Your task to perform on an android device: toggle priority inbox in the gmail app Image 0: 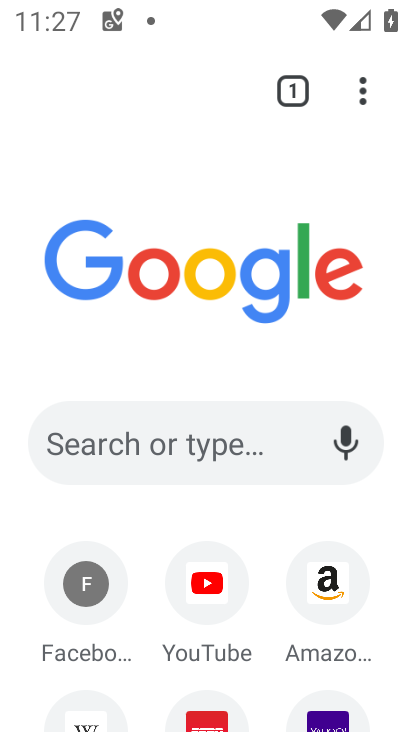
Step 0: press home button
Your task to perform on an android device: toggle priority inbox in the gmail app Image 1: 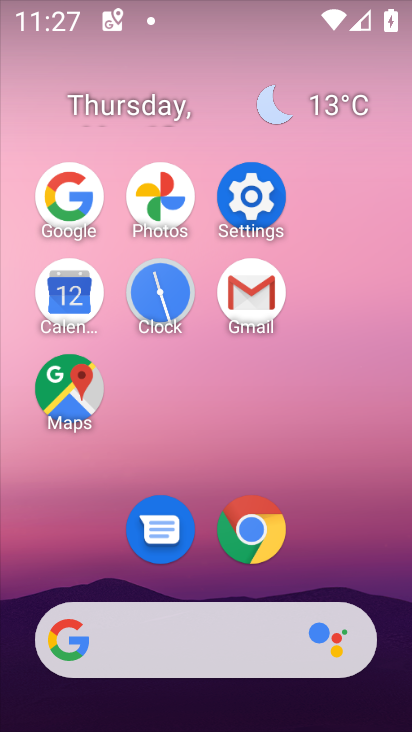
Step 1: click (256, 296)
Your task to perform on an android device: toggle priority inbox in the gmail app Image 2: 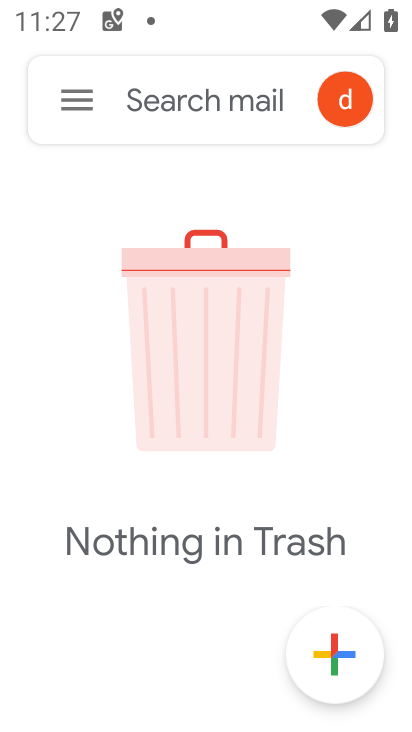
Step 2: click (85, 93)
Your task to perform on an android device: toggle priority inbox in the gmail app Image 3: 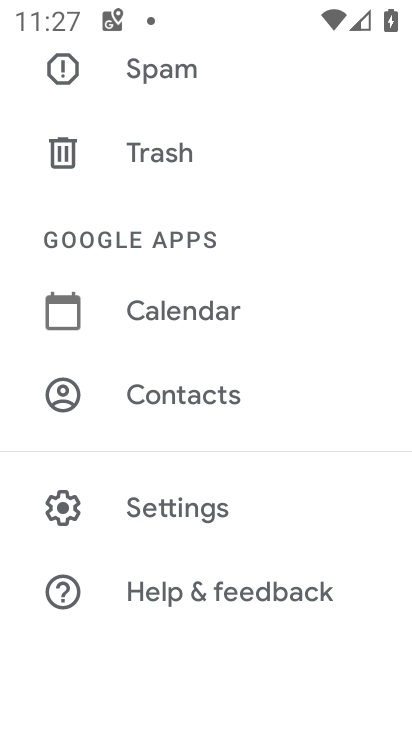
Step 3: click (201, 489)
Your task to perform on an android device: toggle priority inbox in the gmail app Image 4: 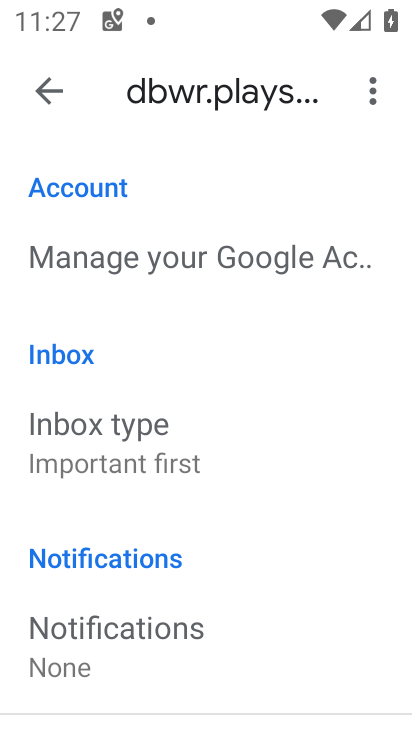
Step 4: click (200, 428)
Your task to perform on an android device: toggle priority inbox in the gmail app Image 5: 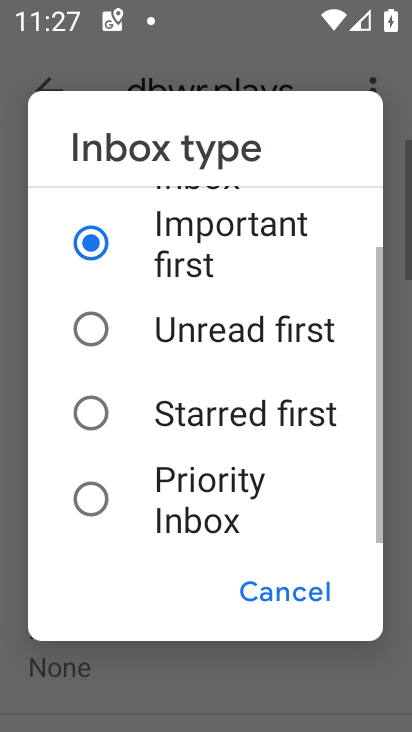
Step 5: drag from (198, 488) to (199, 454)
Your task to perform on an android device: toggle priority inbox in the gmail app Image 6: 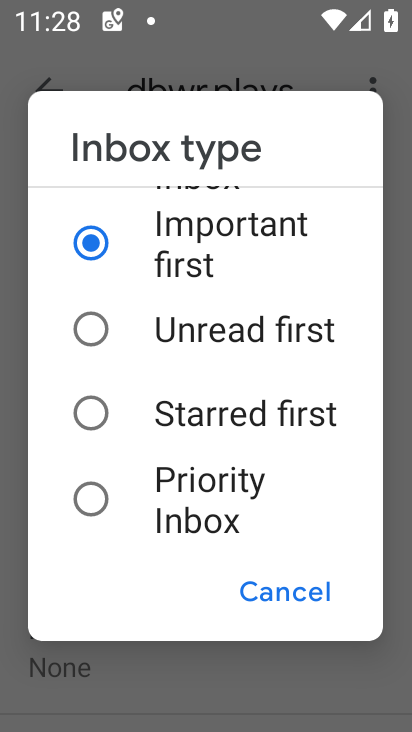
Step 6: click (163, 514)
Your task to perform on an android device: toggle priority inbox in the gmail app Image 7: 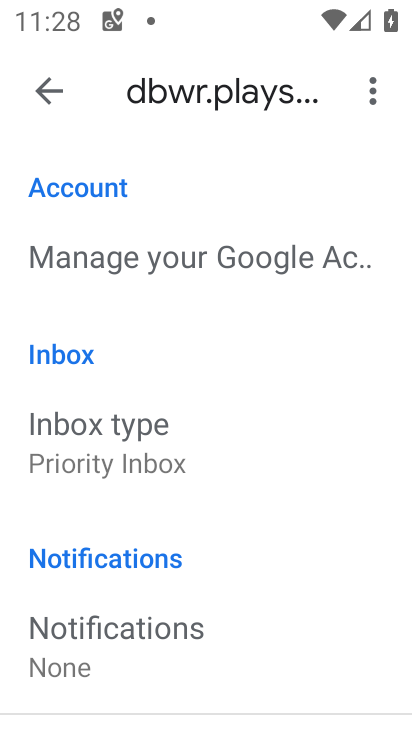
Step 7: task complete